Your task to perform on an android device: Open internet settings Image 0: 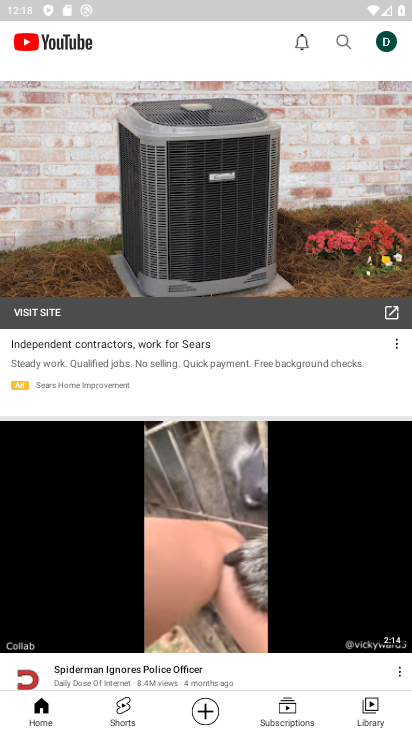
Step 0: press home button
Your task to perform on an android device: Open internet settings Image 1: 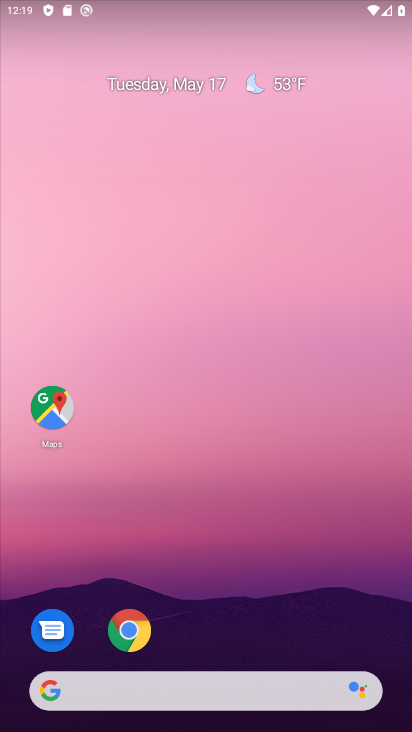
Step 1: drag from (237, 546) to (234, 350)
Your task to perform on an android device: Open internet settings Image 2: 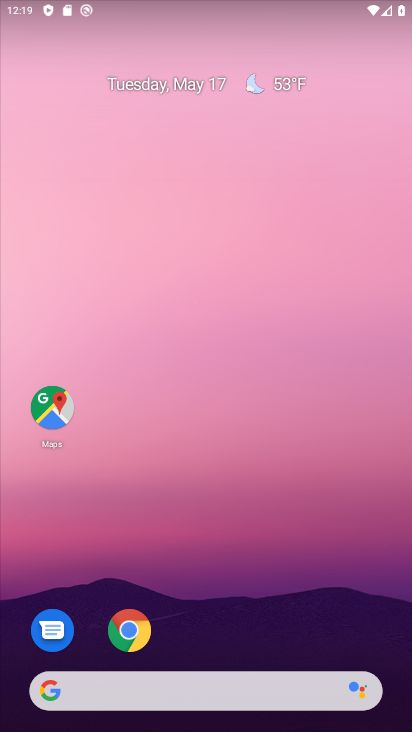
Step 2: drag from (212, 604) to (222, 239)
Your task to perform on an android device: Open internet settings Image 3: 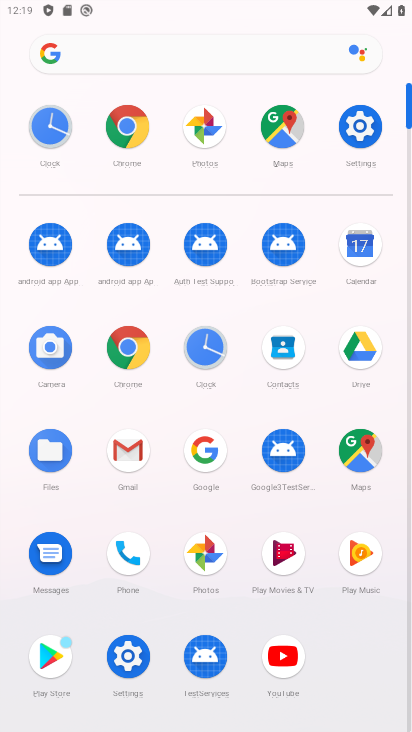
Step 3: click (360, 157)
Your task to perform on an android device: Open internet settings Image 4: 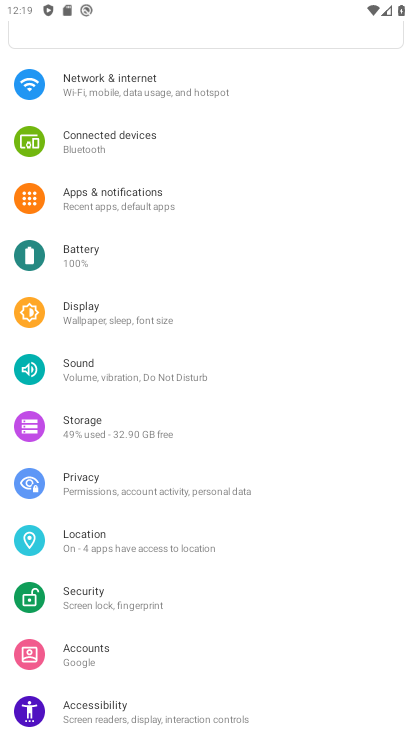
Step 4: drag from (215, 225) to (161, 591)
Your task to perform on an android device: Open internet settings Image 5: 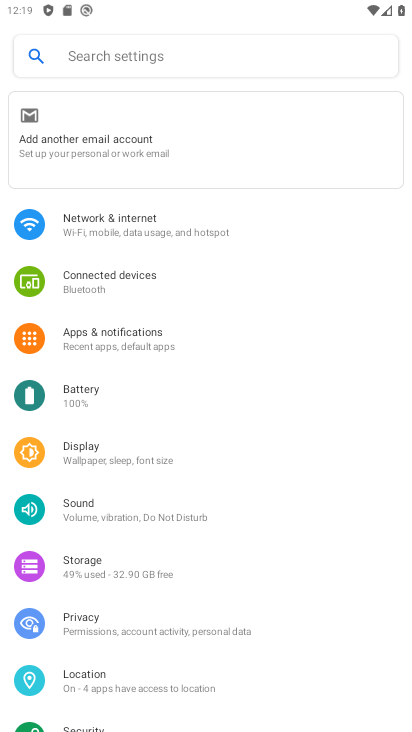
Step 5: click (161, 225)
Your task to perform on an android device: Open internet settings Image 6: 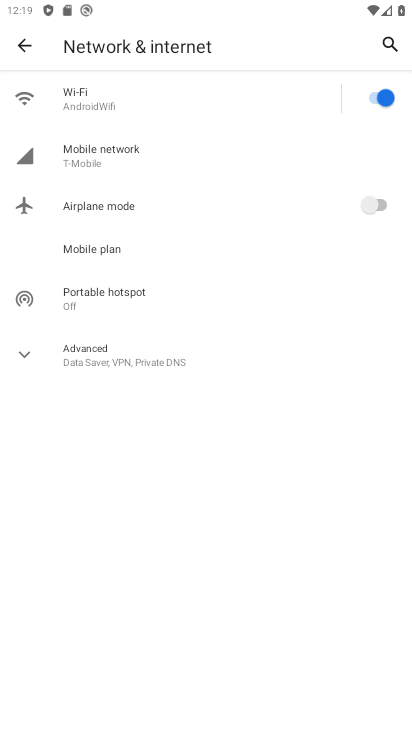
Step 6: click (140, 172)
Your task to perform on an android device: Open internet settings Image 7: 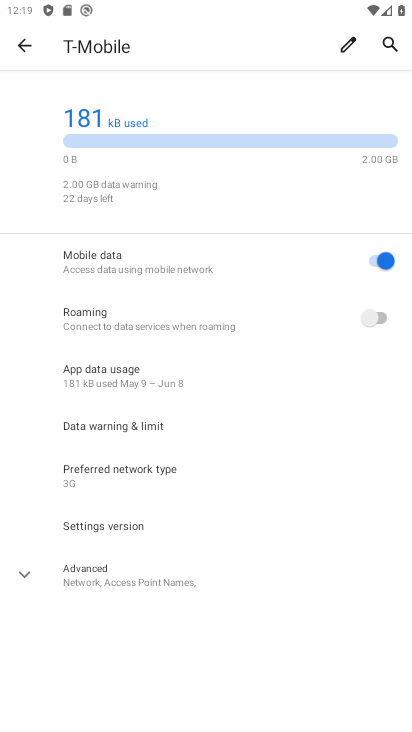
Step 7: task complete